Your task to perform on an android device: Open Wikipedia Image 0: 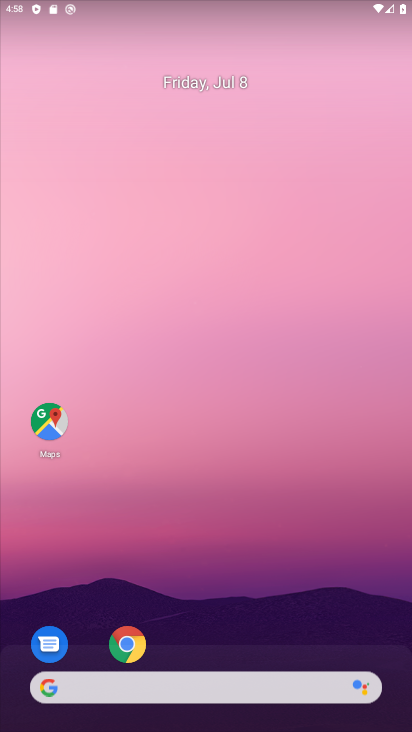
Step 0: click (203, 687)
Your task to perform on an android device: Open Wikipedia Image 1: 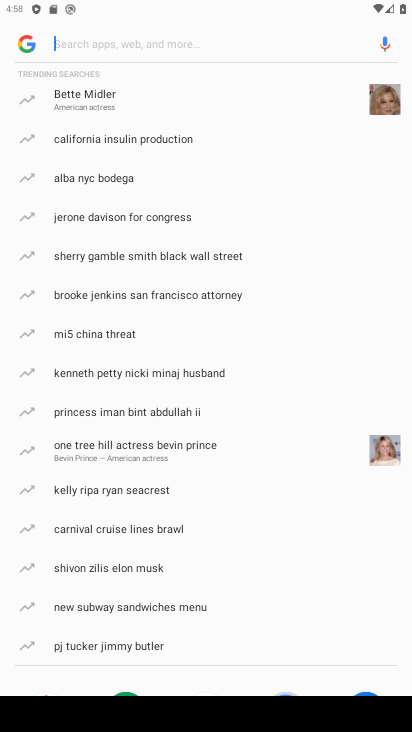
Step 1: type "wikipedia"
Your task to perform on an android device: Open Wikipedia Image 2: 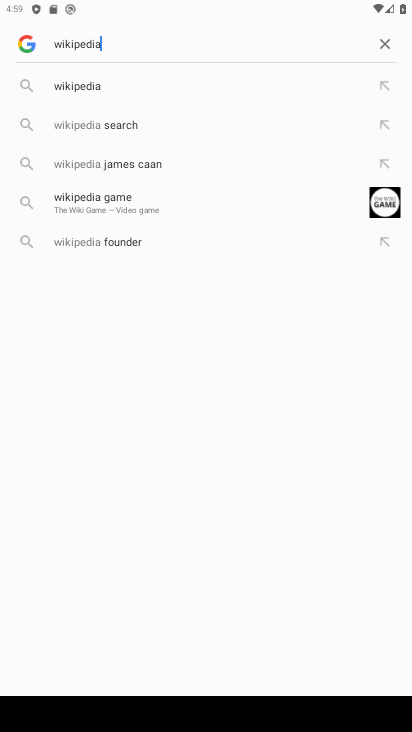
Step 2: press enter
Your task to perform on an android device: Open Wikipedia Image 3: 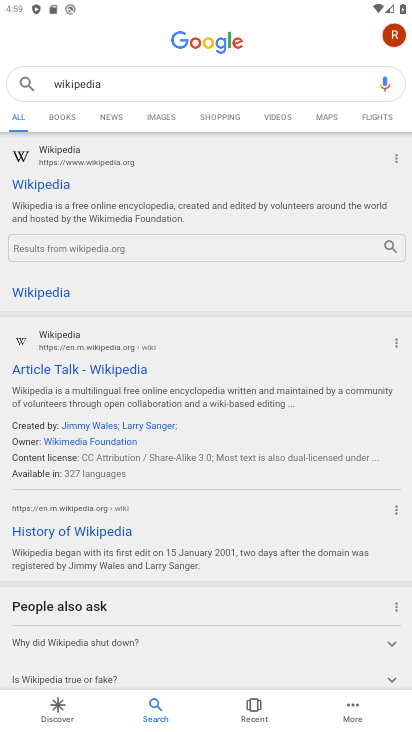
Step 3: click (34, 188)
Your task to perform on an android device: Open Wikipedia Image 4: 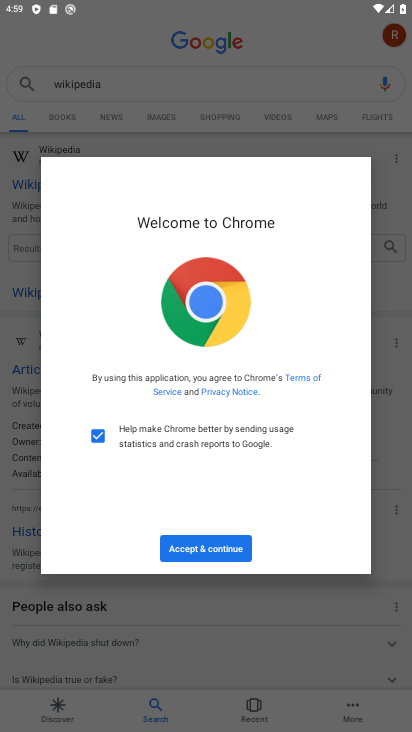
Step 4: click (188, 545)
Your task to perform on an android device: Open Wikipedia Image 5: 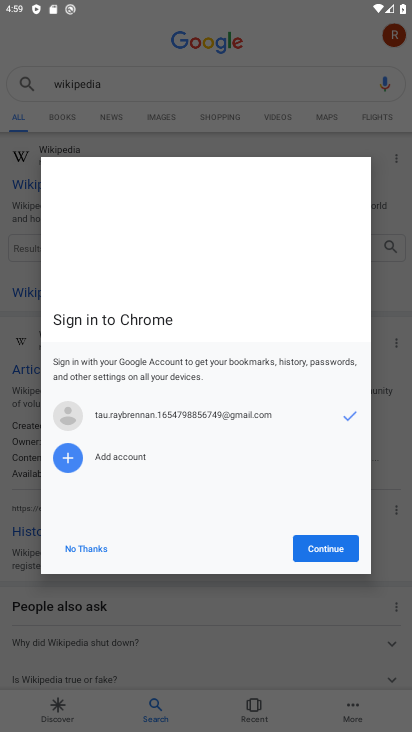
Step 5: click (299, 544)
Your task to perform on an android device: Open Wikipedia Image 6: 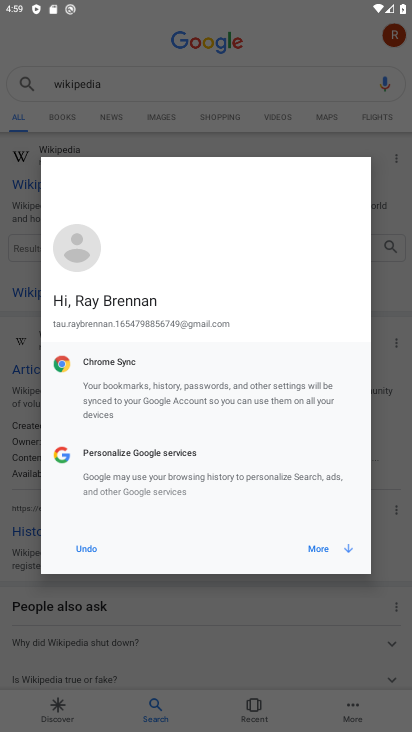
Step 6: click (318, 548)
Your task to perform on an android device: Open Wikipedia Image 7: 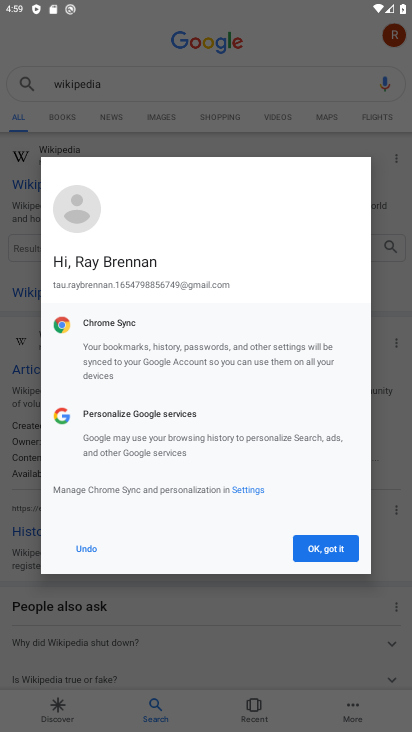
Step 7: click (350, 551)
Your task to perform on an android device: Open Wikipedia Image 8: 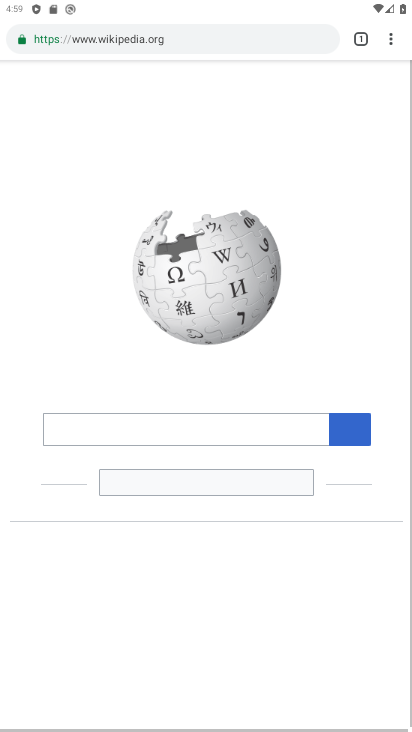
Step 8: task complete